Your task to perform on an android device: Open privacy settings Image 0: 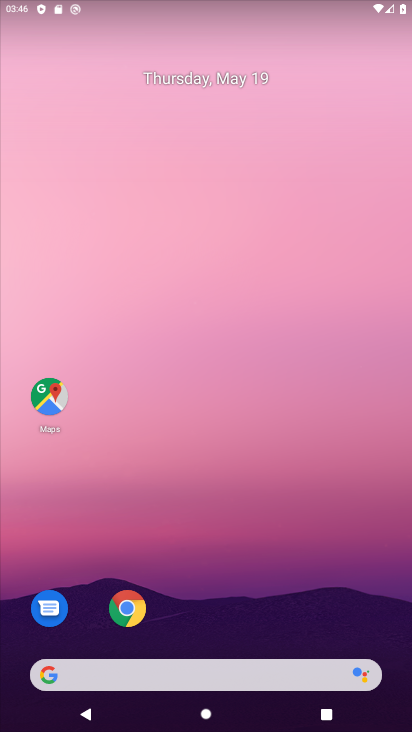
Step 0: drag from (264, 583) to (201, 0)
Your task to perform on an android device: Open privacy settings Image 1: 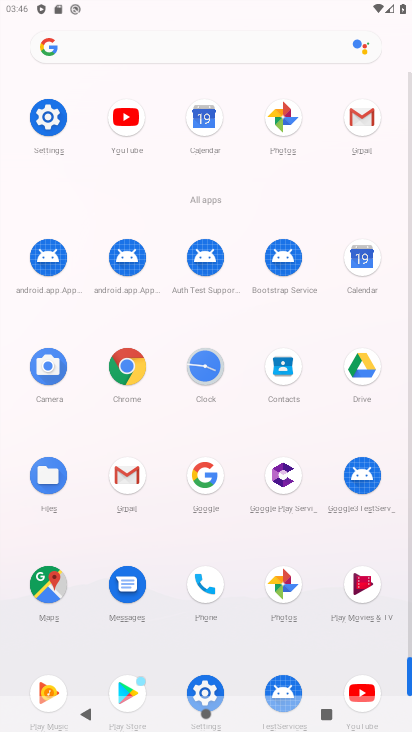
Step 1: click (48, 117)
Your task to perform on an android device: Open privacy settings Image 2: 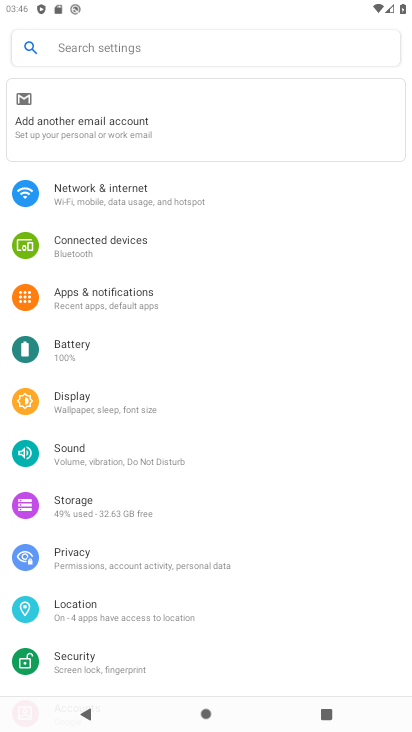
Step 2: click (124, 564)
Your task to perform on an android device: Open privacy settings Image 3: 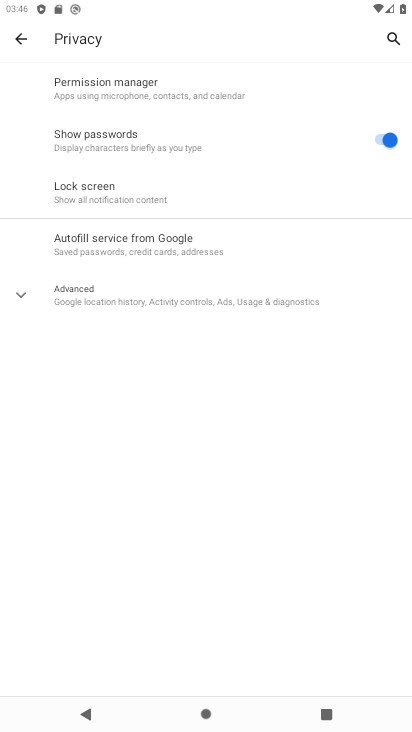
Step 3: task complete